Your task to perform on an android device: Search for a new lawnmower on Lowes. Image 0: 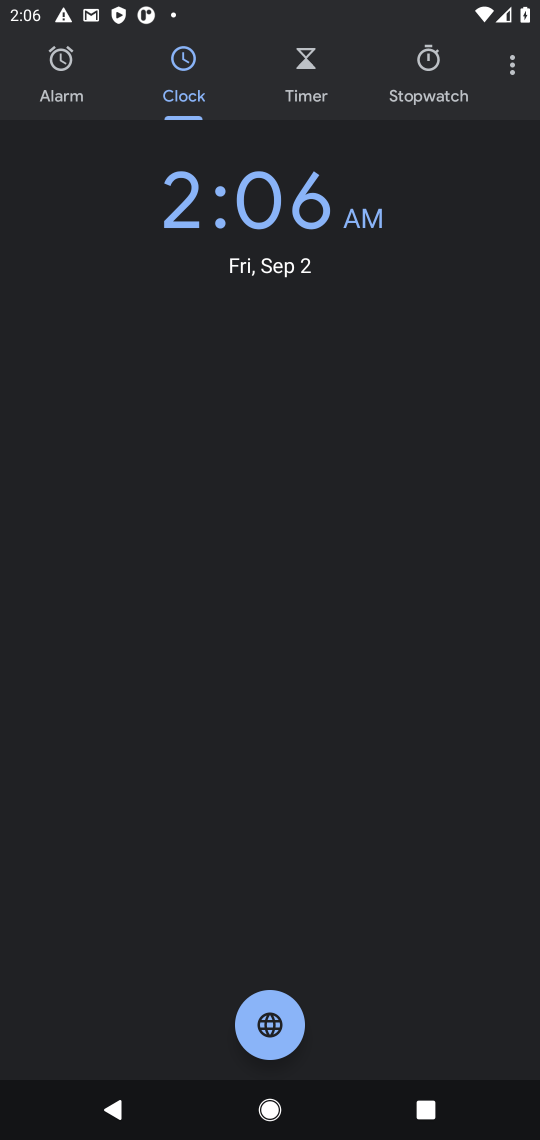
Step 0: press home button
Your task to perform on an android device: Search for a new lawnmower on Lowes. Image 1: 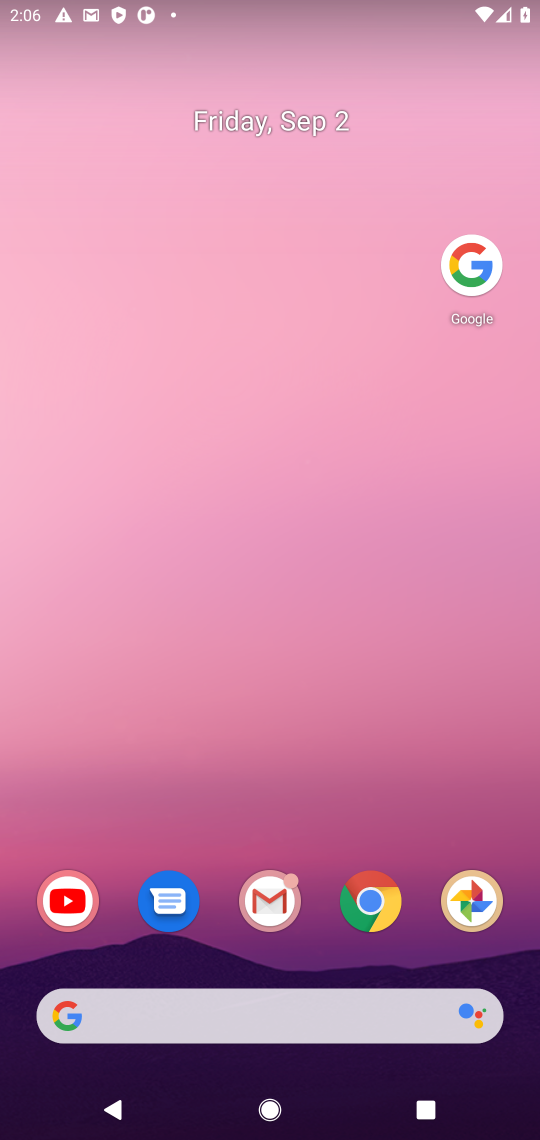
Step 1: drag from (312, 863) to (308, 247)
Your task to perform on an android device: Search for a new lawnmower on Lowes. Image 2: 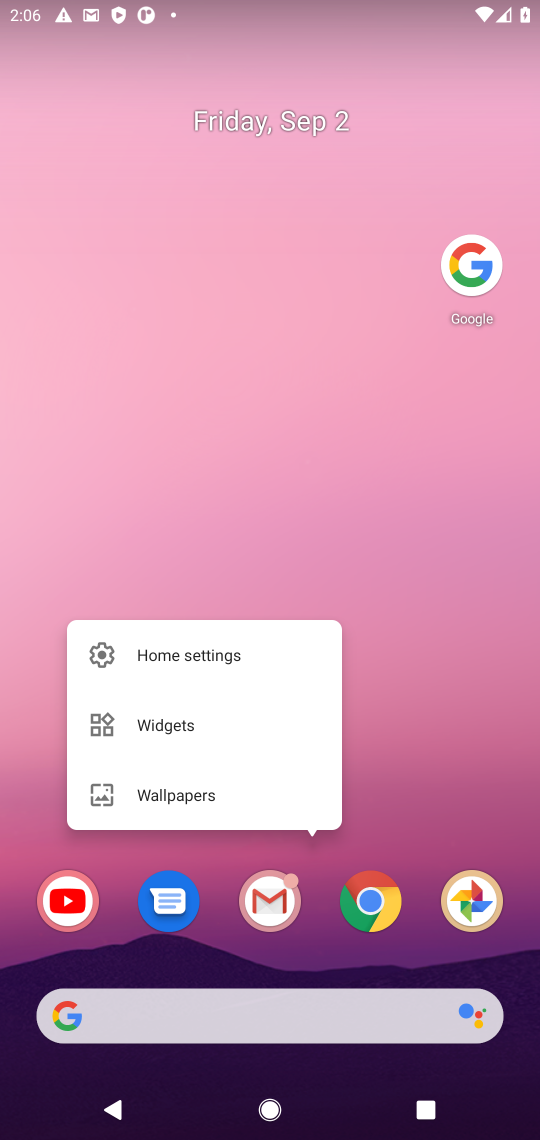
Step 2: click (482, 245)
Your task to perform on an android device: Search for a new lawnmower on Lowes. Image 3: 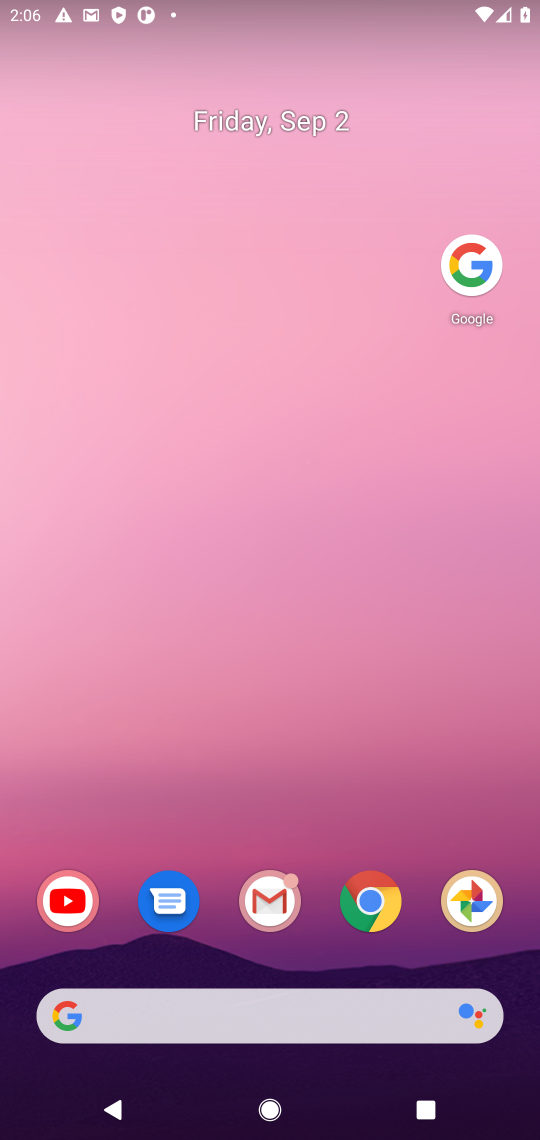
Step 3: click (482, 251)
Your task to perform on an android device: Search for a new lawnmower on Lowes. Image 4: 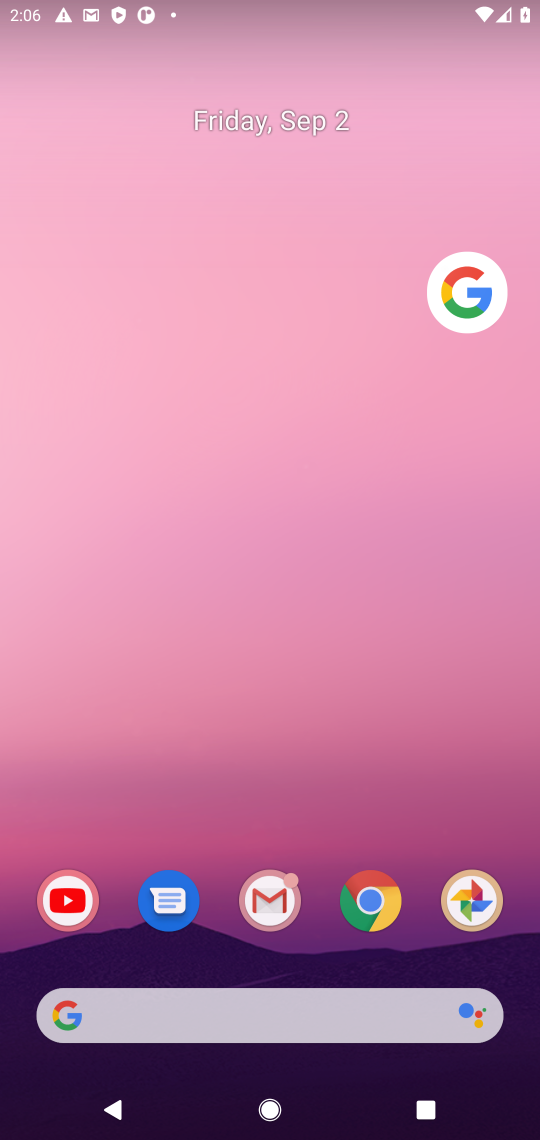
Step 4: click (464, 257)
Your task to perform on an android device: Search for a new lawnmower on Lowes. Image 5: 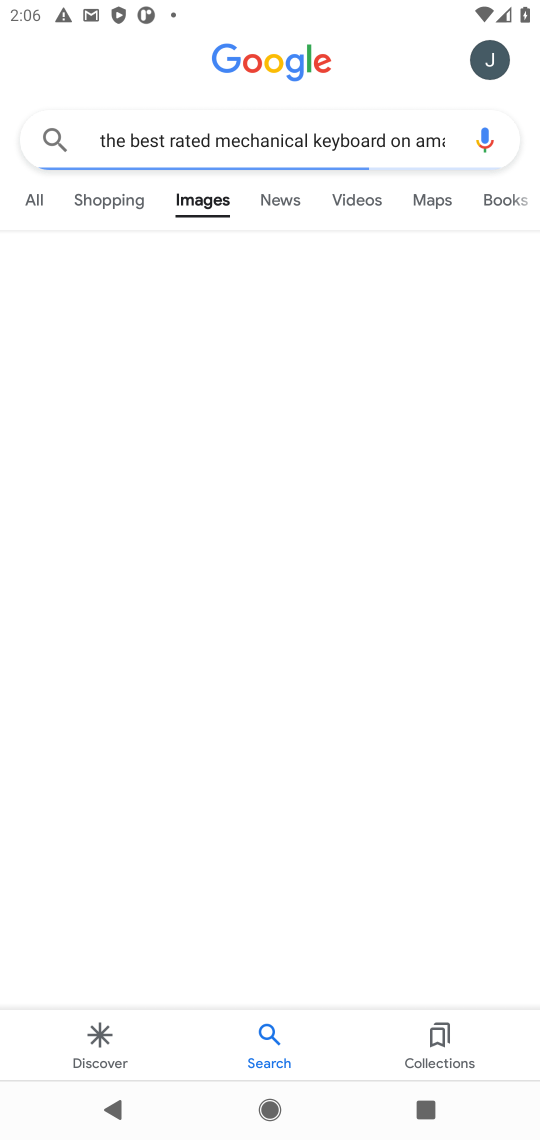
Step 5: click (418, 128)
Your task to perform on an android device: Search for a new lawnmower on Lowes. Image 6: 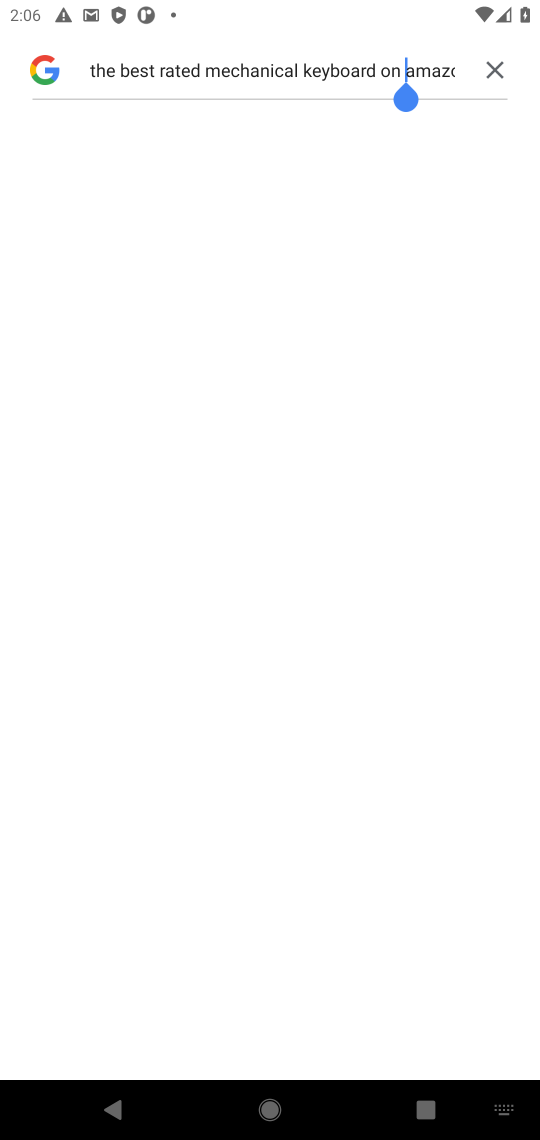
Step 6: click (500, 62)
Your task to perform on an android device: Search for a new lawnmower on Lowes. Image 7: 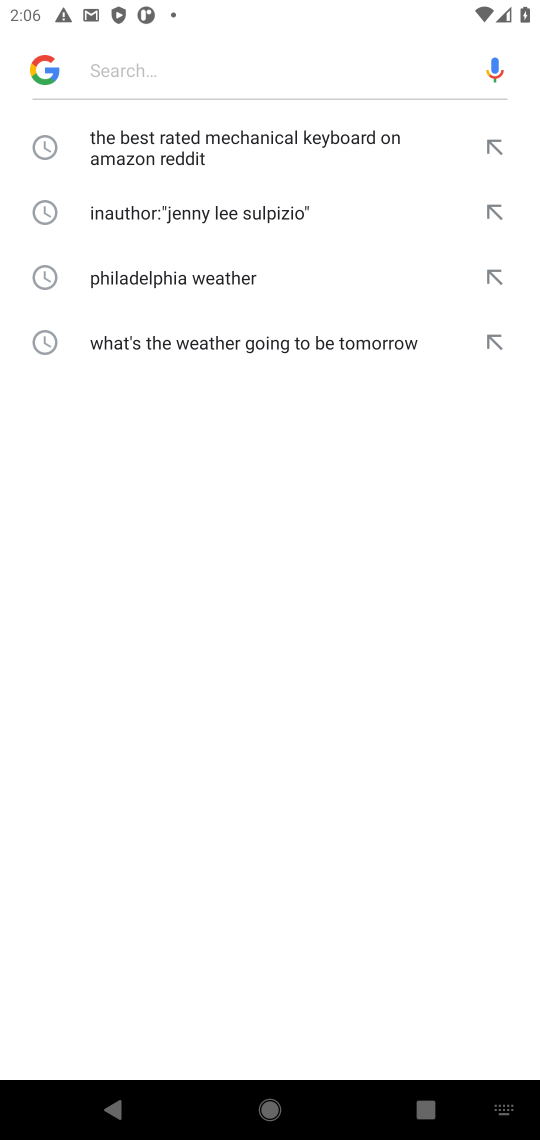
Step 7: click (278, 60)
Your task to perform on an android device: Search for a new lawnmower on Lowes. Image 8: 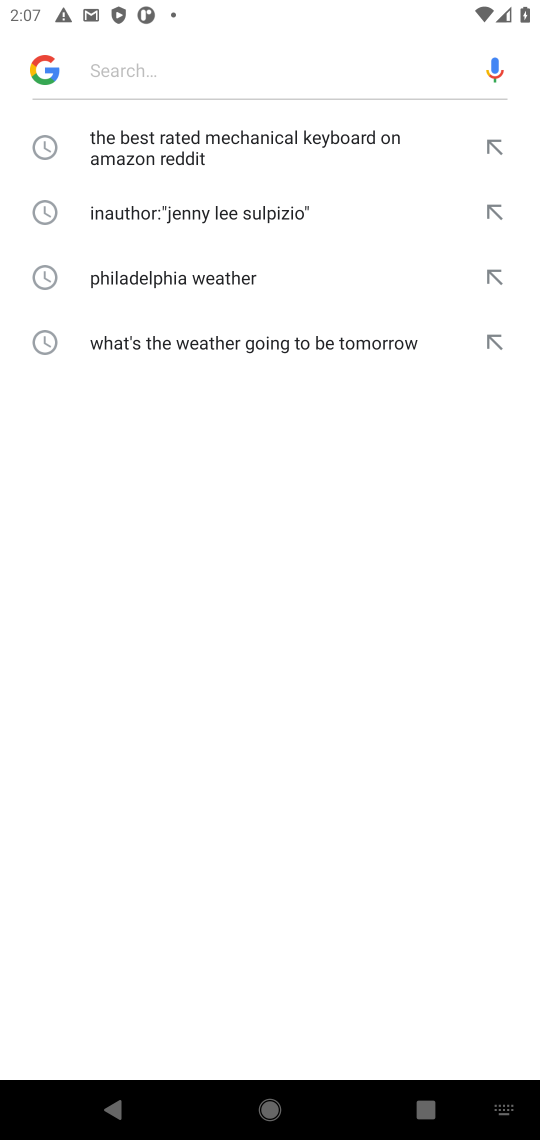
Step 8: click (187, 78)
Your task to perform on an android device: Search for a new lawnmower on Lowes. Image 9: 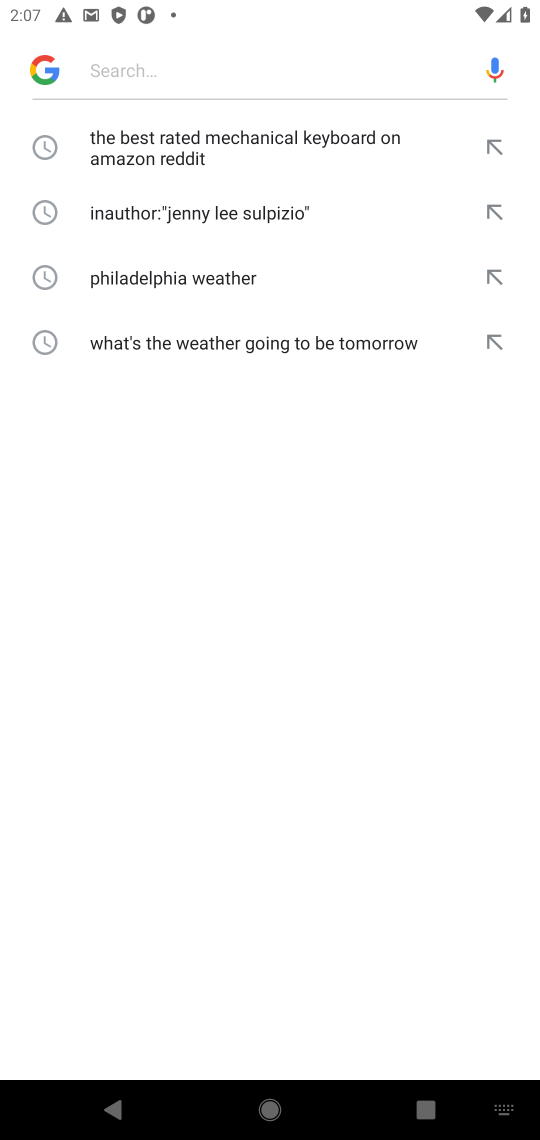
Step 9: type "a new lawnmower on Lowes. "
Your task to perform on an android device: Search for a new lawnmower on Lowes. Image 10: 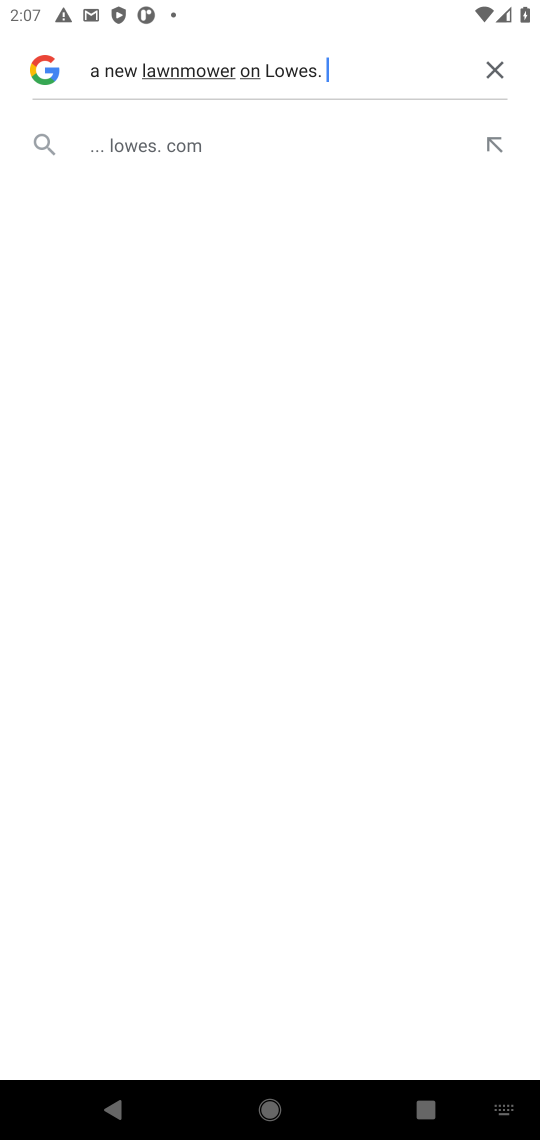
Step 10: click (158, 150)
Your task to perform on an android device: Search for a new lawnmower on Lowes. Image 11: 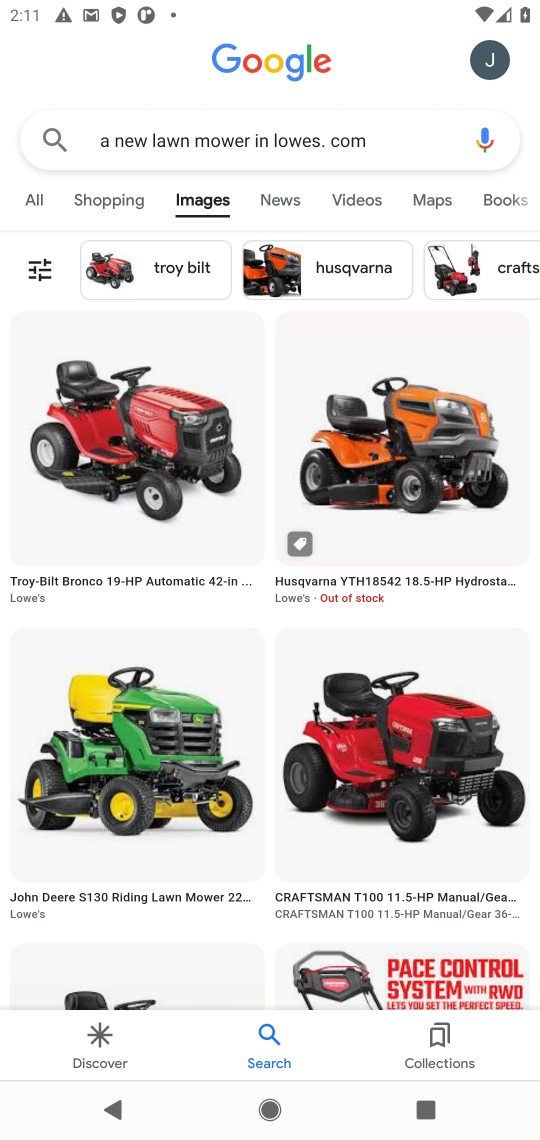
Step 11: task complete